Your task to perform on an android device: Open Google Maps Image 0: 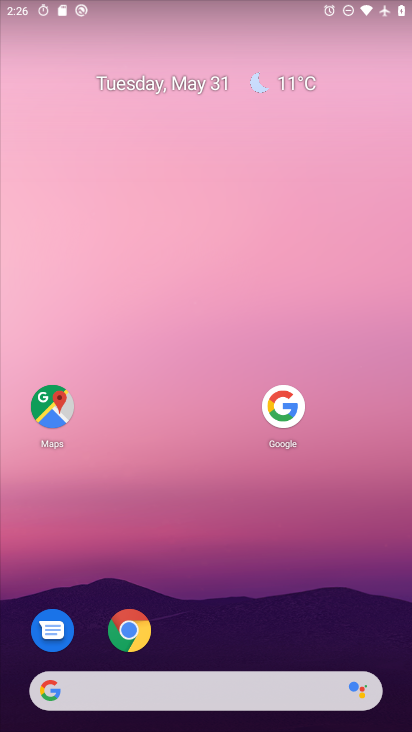
Step 0: press home button
Your task to perform on an android device: Open Google Maps Image 1: 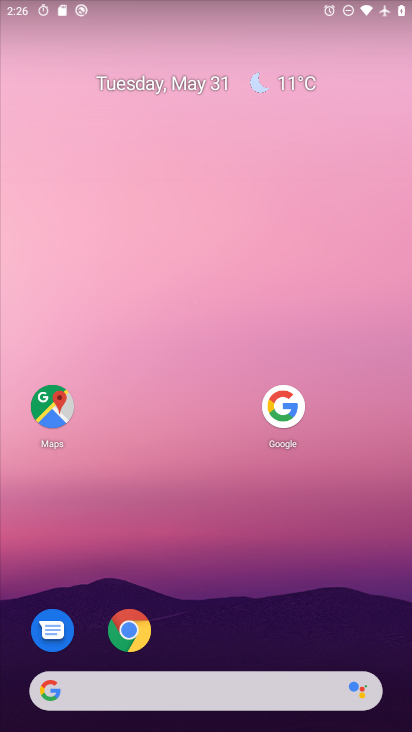
Step 1: click (48, 403)
Your task to perform on an android device: Open Google Maps Image 2: 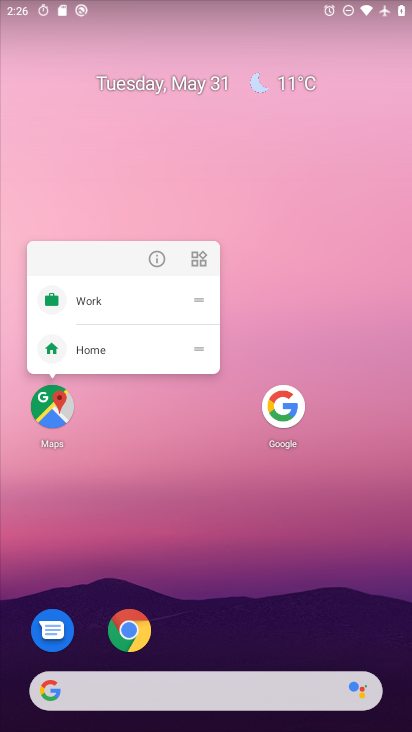
Step 2: click (48, 413)
Your task to perform on an android device: Open Google Maps Image 3: 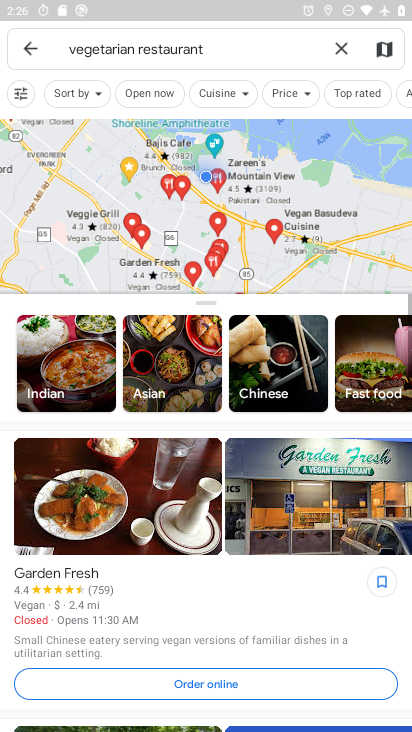
Step 3: click (33, 49)
Your task to perform on an android device: Open Google Maps Image 4: 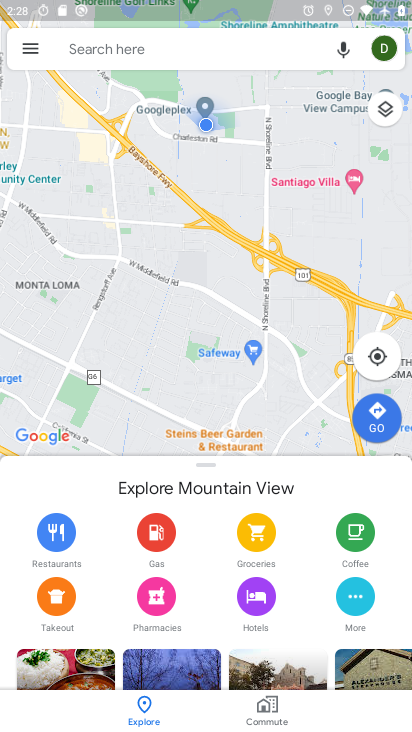
Step 4: task complete